Your task to perform on an android device: Open Google Chrome and click the shortcut for Amazon.com Image 0: 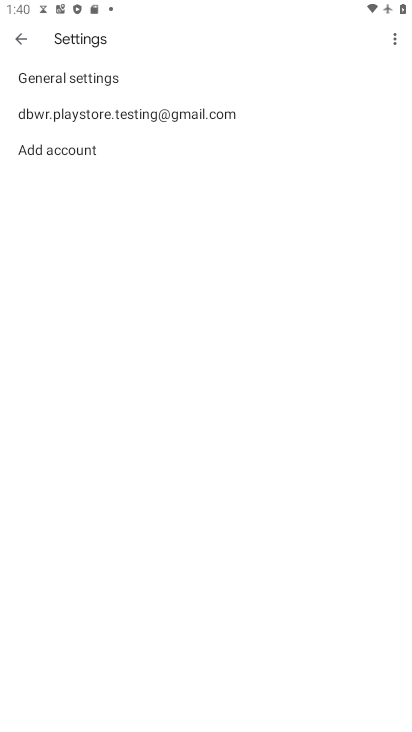
Step 0: press home button
Your task to perform on an android device: Open Google Chrome and click the shortcut for Amazon.com Image 1: 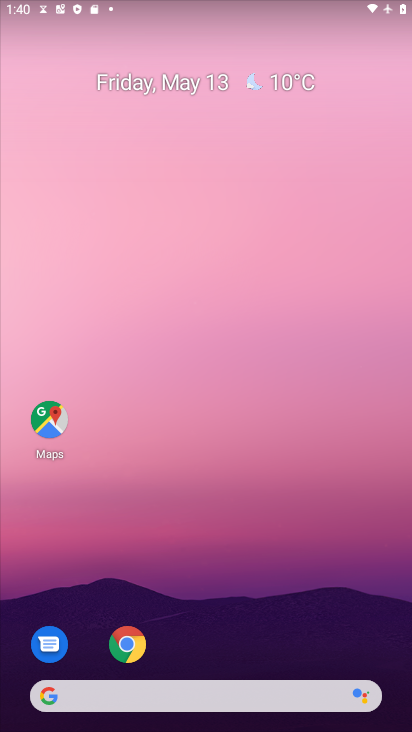
Step 1: click (121, 642)
Your task to perform on an android device: Open Google Chrome and click the shortcut for Amazon.com Image 2: 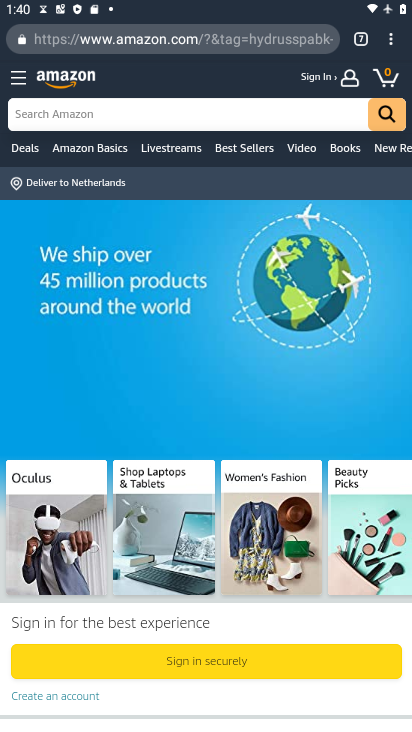
Step 2: click (393, 48)
Your task to perform on an android device: Open Google Chrome and click the shortcut for Amazon.com Image 3: 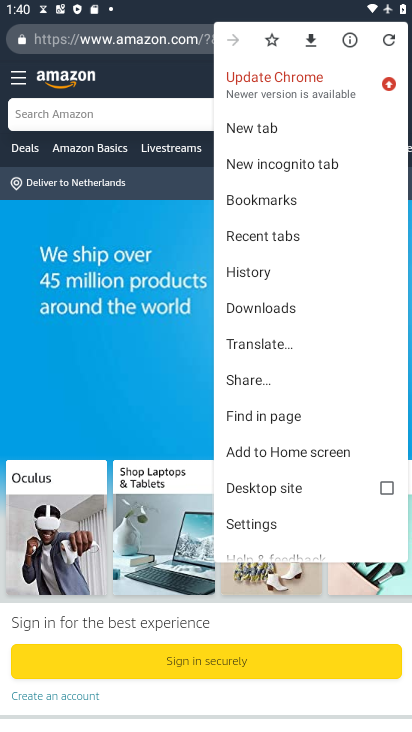
Step 3: click (248, 130)
Your task to perform on an android device: Open Google Chrome and click the shortcut for Amazon.com Image 4: 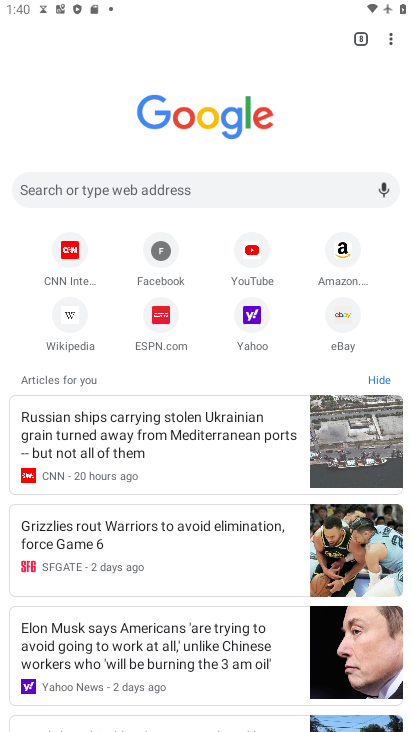
Step 4: click (341, 259)
Your task to perform on an android device: Open Google Chrome and click the shortcut for Amazon.com Image 5: 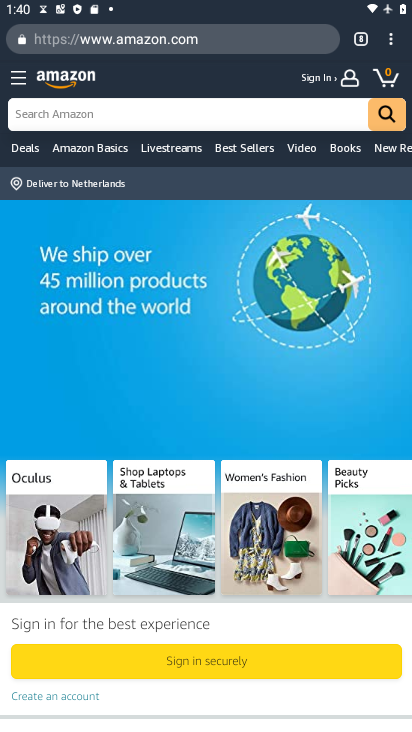
Step 5: task complete